Your task to perform on an android device: Open my contact list Image 0: 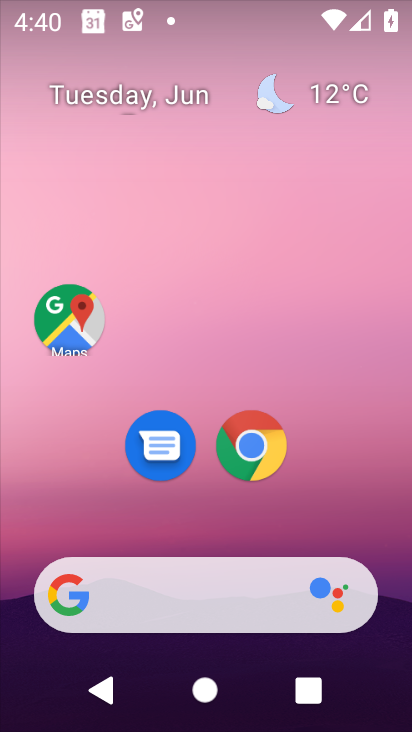
Step 0: drag from (338, 317) to (290, 3)
Your task to perform on an android device: Open my contact list Image 1: 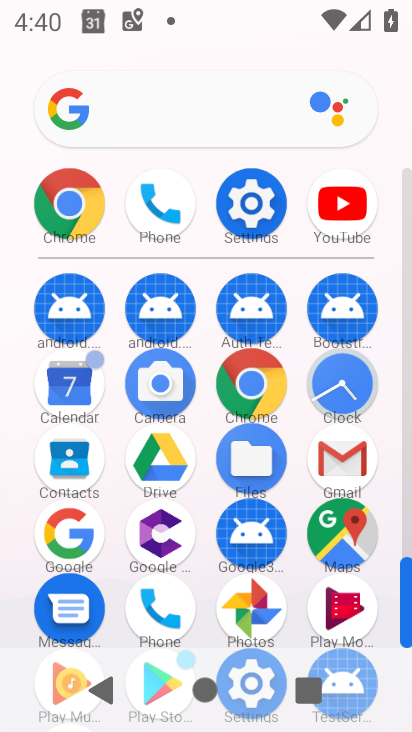
Step 1: click (163, 218)
Your task to perform on an android device: Open my contact list Image 2: 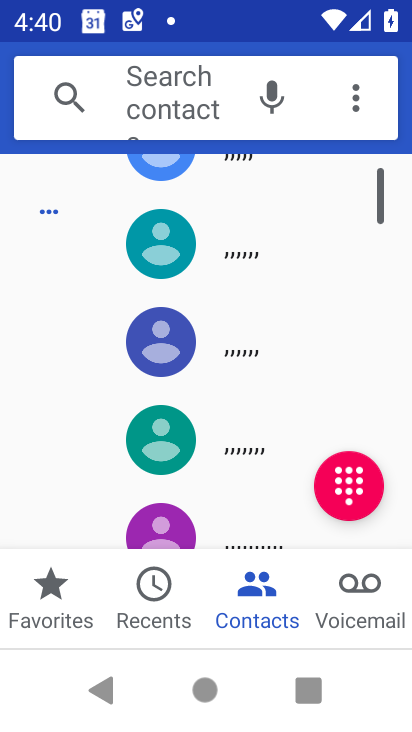
Step 2: task complete